Your task to perform on an android device: search for starred emails in the gmail app Image 0: 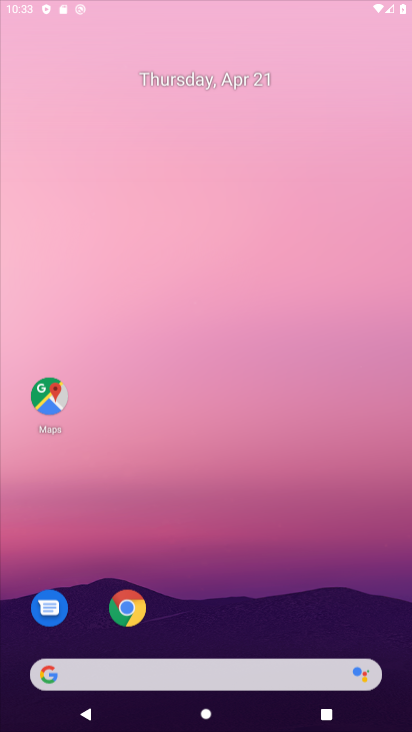
Step 0: click (52, 399)
Your task to perform on an android device: search for starred emails in the gmail app Image 1: 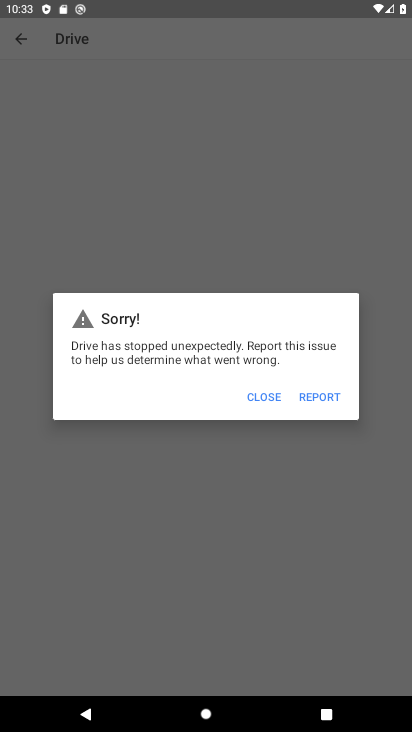
Step 1: press home button
Your task to perform on an android device: search for starred emails in the gmail app Image 2: 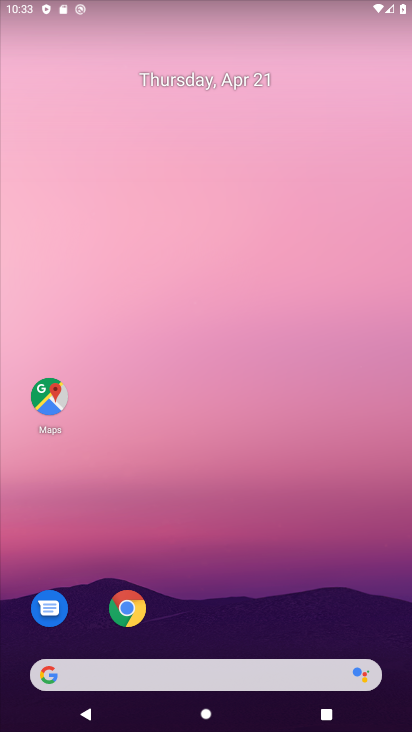
Step 2: drag from (255, 561) to (300, 46)
Your task to perform on an android device: search for starred emails in the gmail app Image 3: 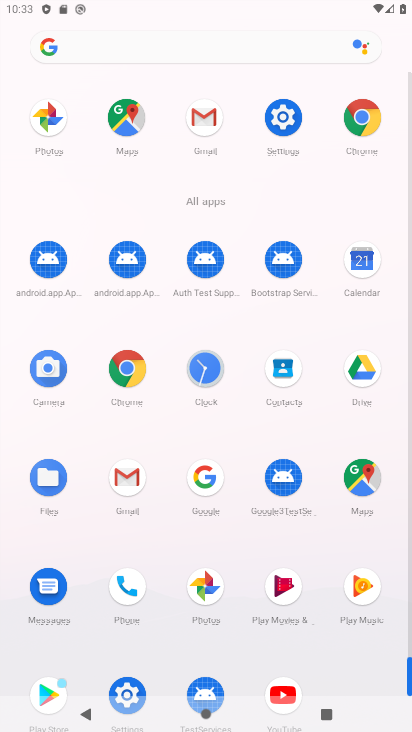
Step 3: click (203, 118)
Your task to perform on an android device: search for starred emails in the gmail app Image 4: 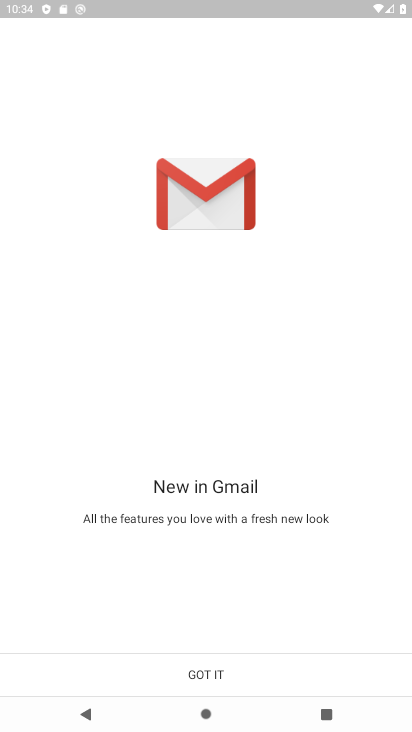
Step 4: click (212, 674)
Your task to perform on an android device: search for starred emails in the gmail app Image 5: 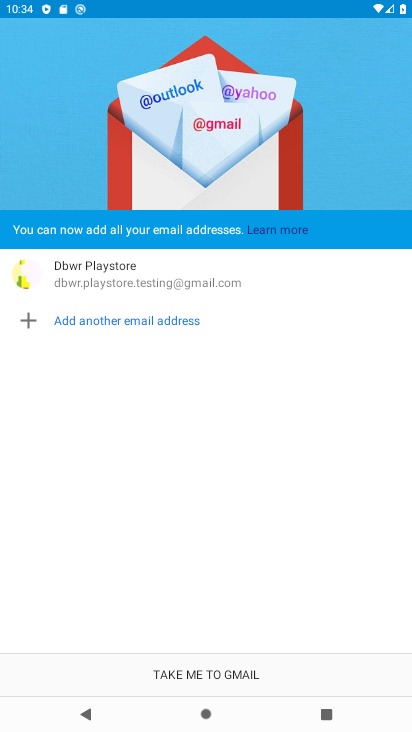
Step 5: click (212, 674)
Your task to perform on an android device: search for starred emails in the gmail app Image 6: 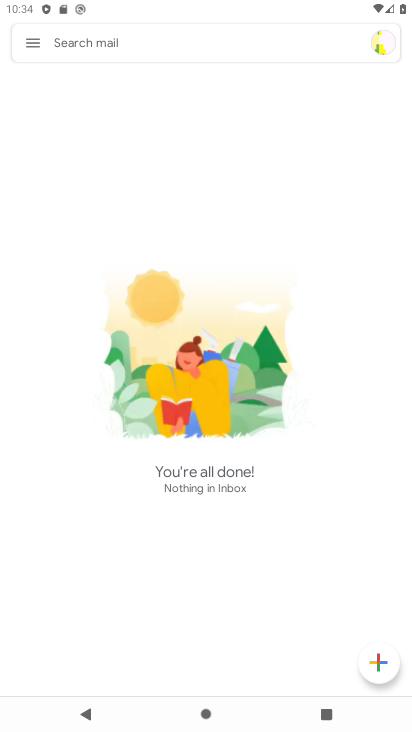
Step 6: click (31, 40)
Your task to perform on an android device: search for starred emails in the gmail app Image 7: 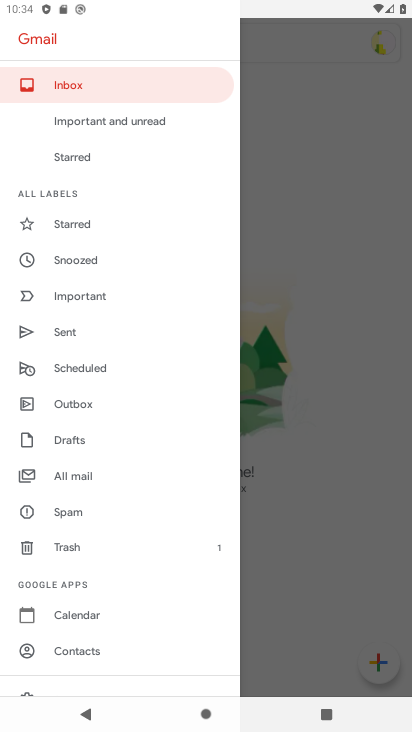
Step 7: click (79, 223)
Your task to perform on an android device: search for starred emails in the gmail app Image 8: 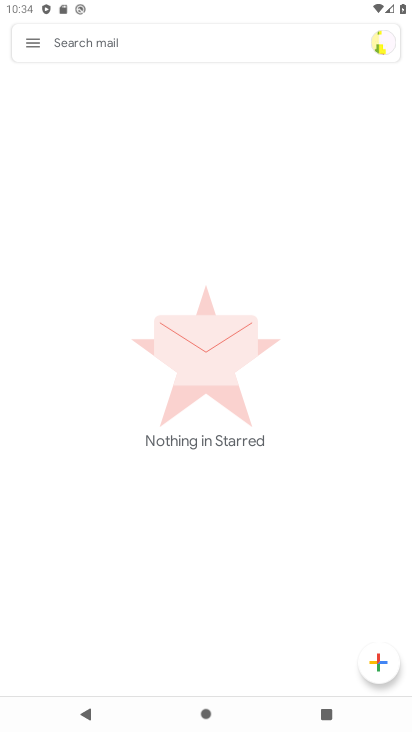
Step 8: click (31, 42)
Your task to perform on an android device: search for starred emails in the gmail app Image 9: 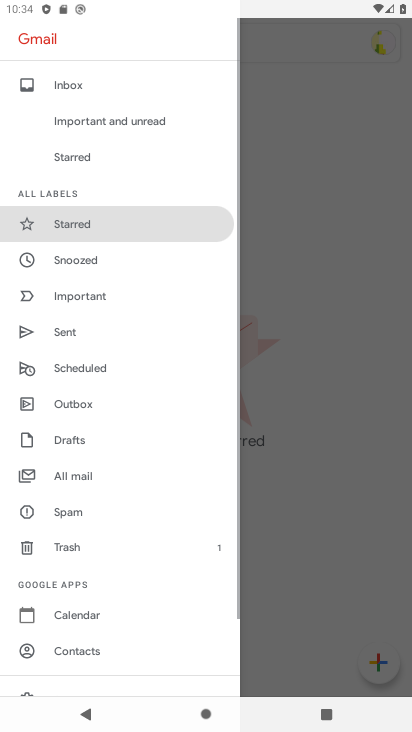
Step 9: click (64, 147)
Your task to perform on an android device: search for starred emails in the gmail app Image 10: 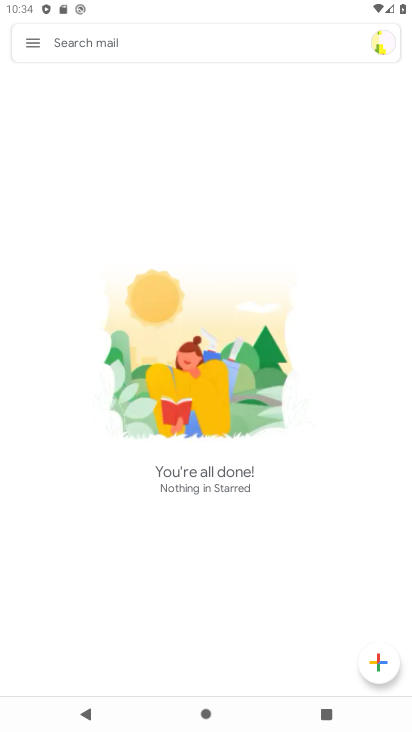
Step 10: task complete